Your task to perform on an android device: Turn on the flashlight Image 0: 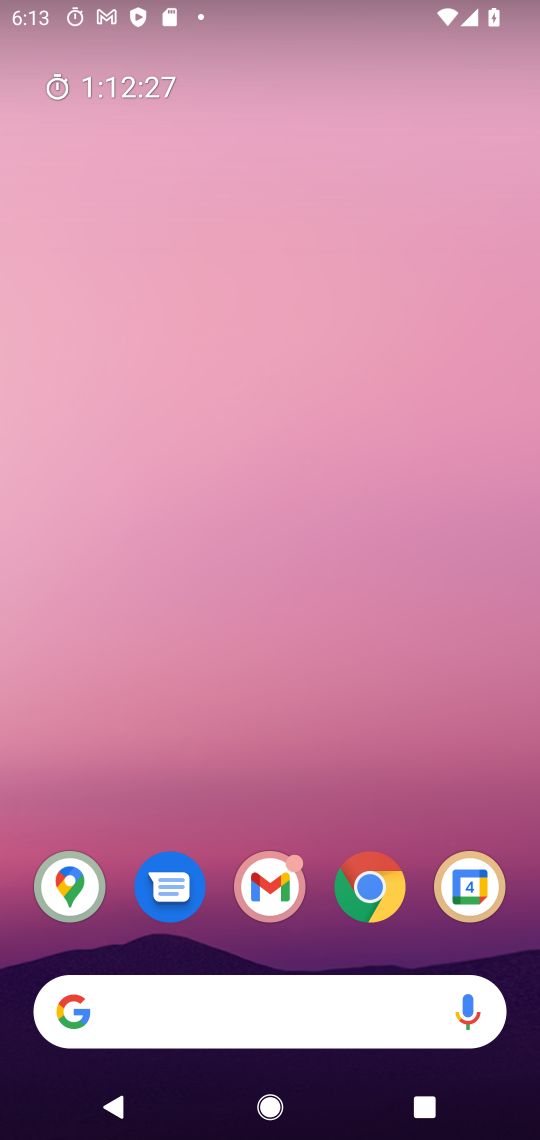
Step 0: drag from (517, 1065) to (274, 137)
Your task to perform on an android device: Turn on the flashlight Image 1: 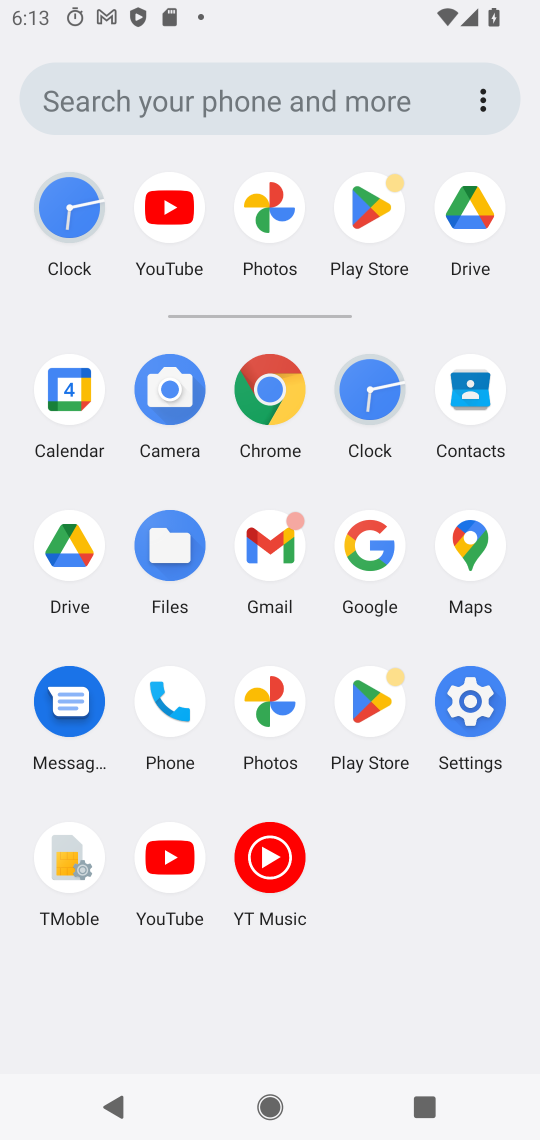
Step 1: click (468, 696)
Your task to perform on an android device: Turn on the flashlight Image 2: 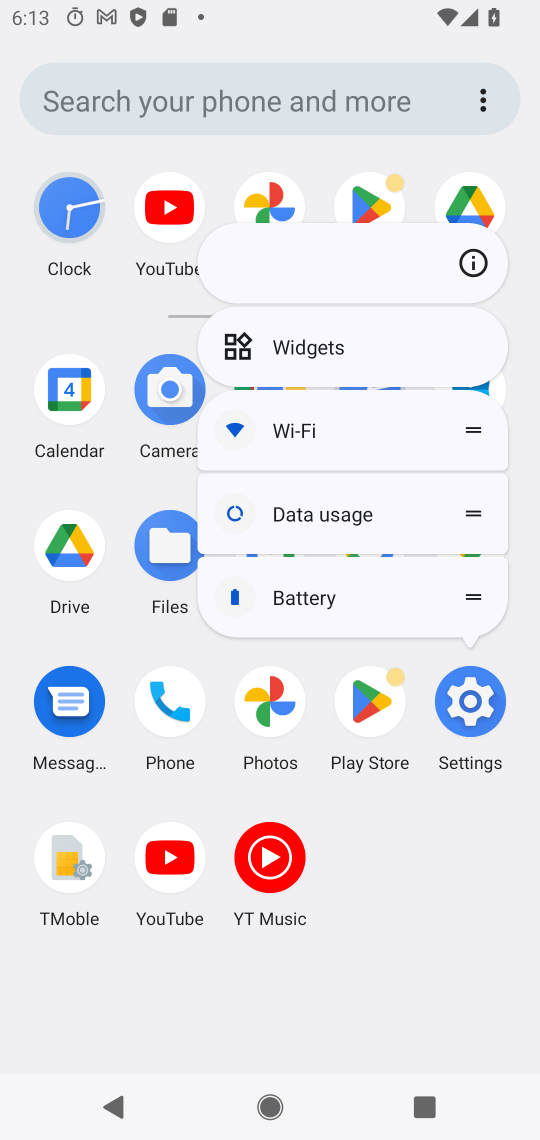
Step 2: click (470, 695)
Your task to perform on an android device: Turn on the flashlight Image 3: 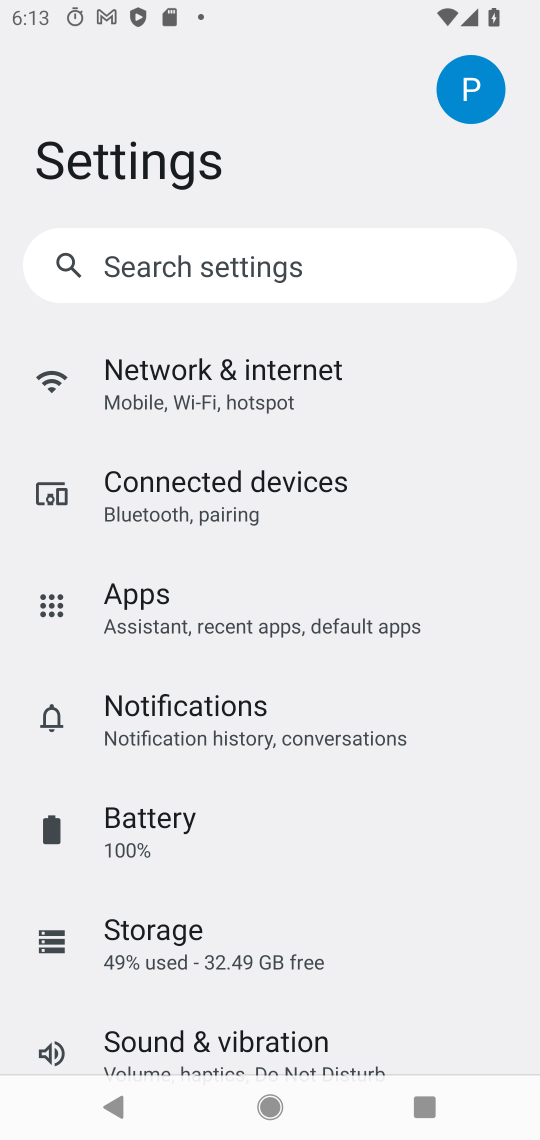
Step 3: drag from (368, 921) to (331, 413)
Your task to perform on an android device: Turn on the flashlight Image 4: 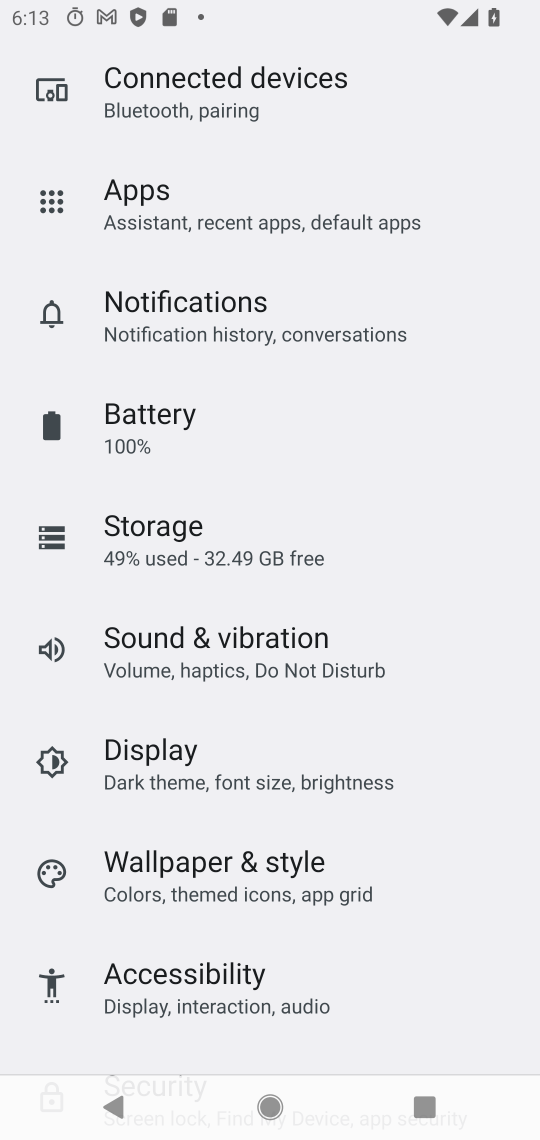
Step 4: drag from (401, 1008) to (343, 551)
Your task to perform on an android device: Turn on the flashlight Image 5: 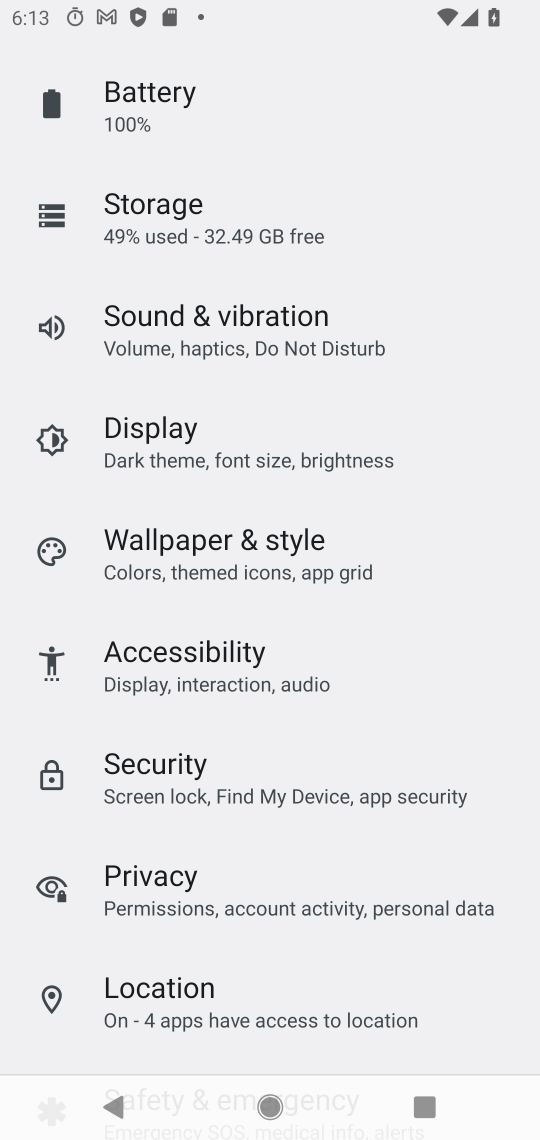
Step 5: drag from (408, 1025) to (337, 410)
Your task to perform on an android device: Turn on the flashlight Image 6: 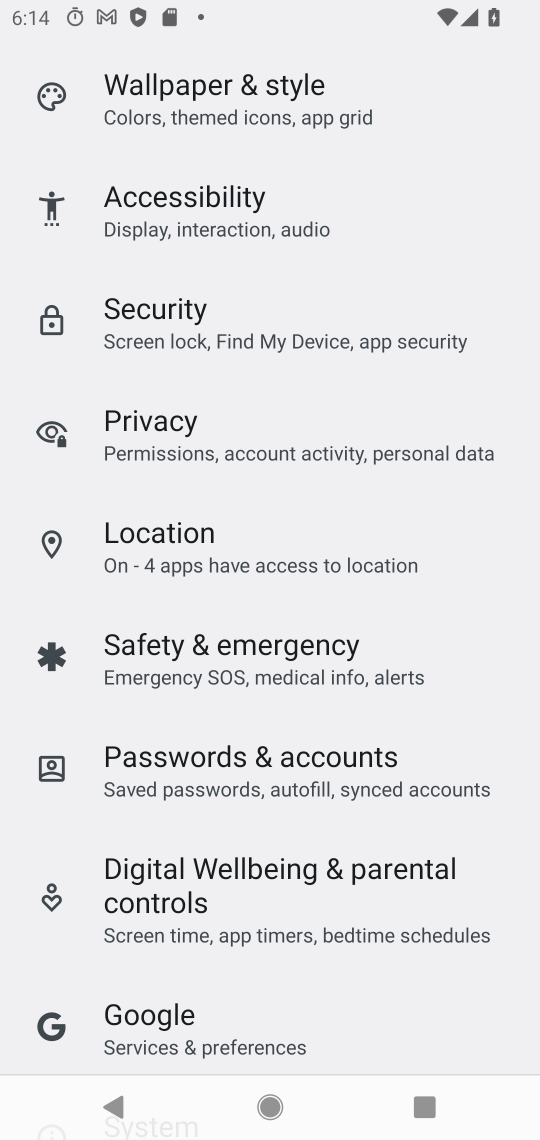
Step 6: drag from (352, 154) to (407, 753)
Your task to perform on an android device: Turn on the flashlight Image 7: 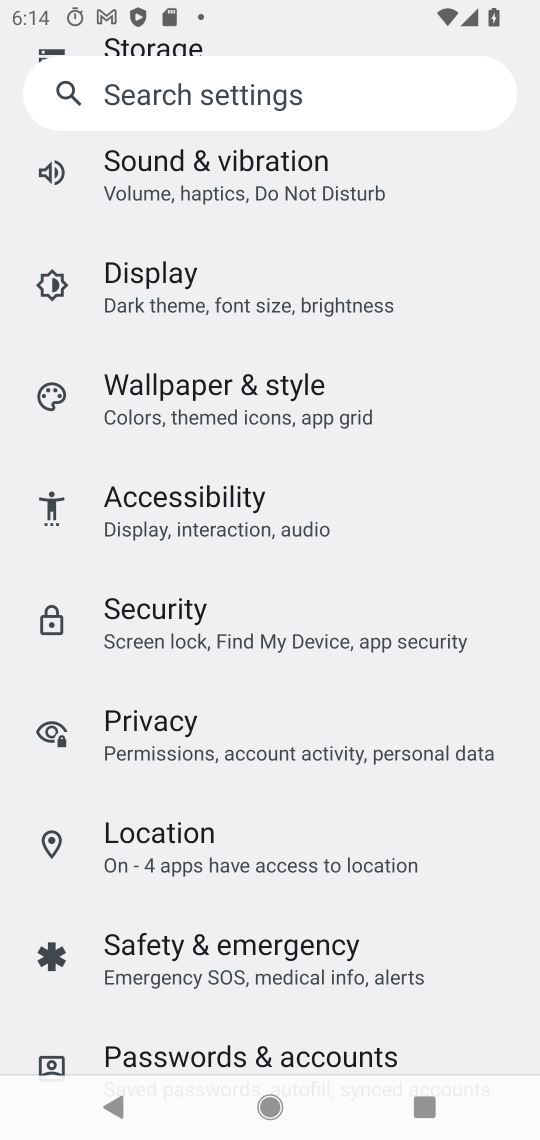
Step 7: click (190, 265)
Your task to perform on an android device: Turn on the flashlight Image 8: 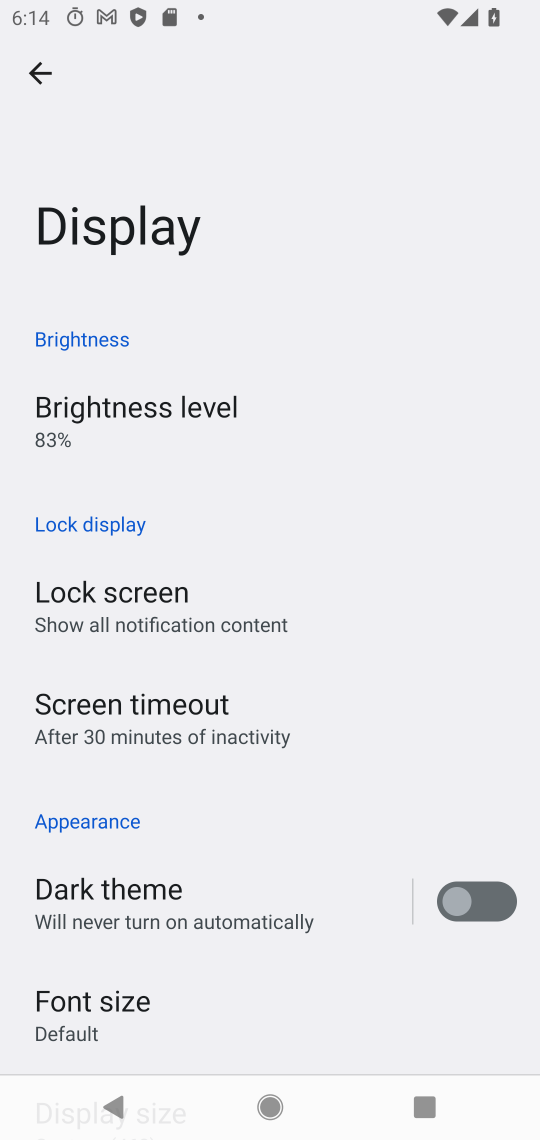
Step 8: task complete